Your task to perform on an android device: Clear all items from cart on bestbuy. Search for macbook pro 13 inch on bestbuy, select the first entry, and add it to the cart. Image 0: 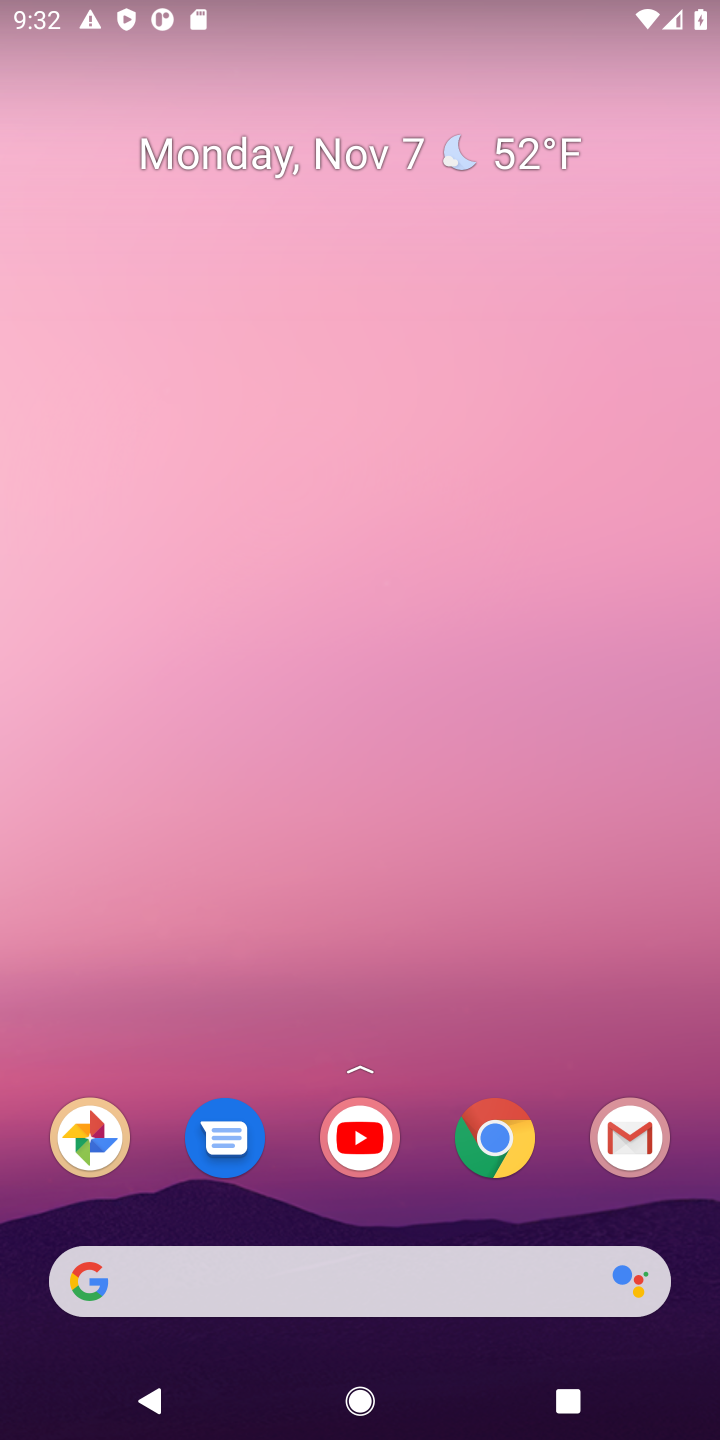
Step 0: drag from (407, 1231) to (453, 113)
Your task to perform on an android device: Clear all items from cart on bestbuy. Search for macbook pro 13 inch on bestbuy, select the first entry, and add it to the cart. Image 1: 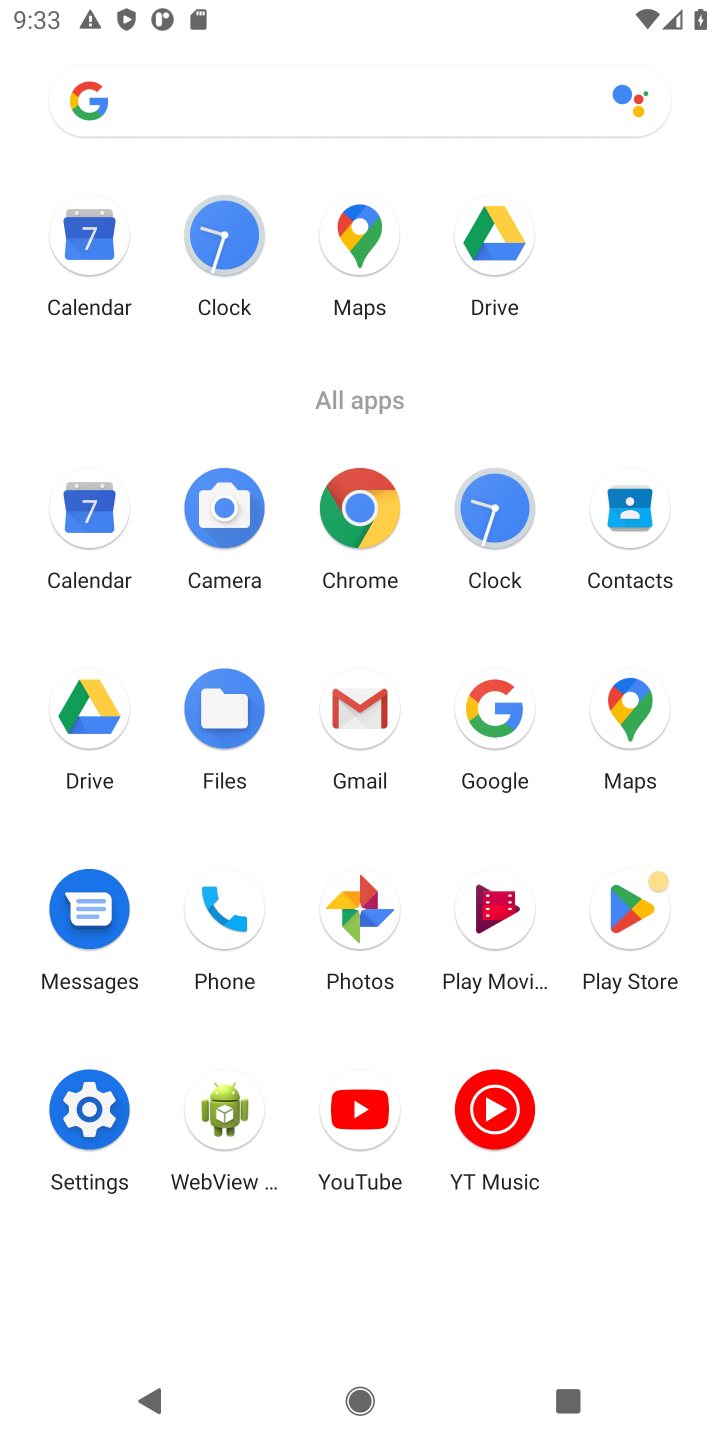
Step 1: click (356, 506)
Your task to perform on an android device: Clear all items from cart on bestbuy. Search for macbook pro 13 inch on bestbuy, select the first entry, and add it to the cart. Image 2: 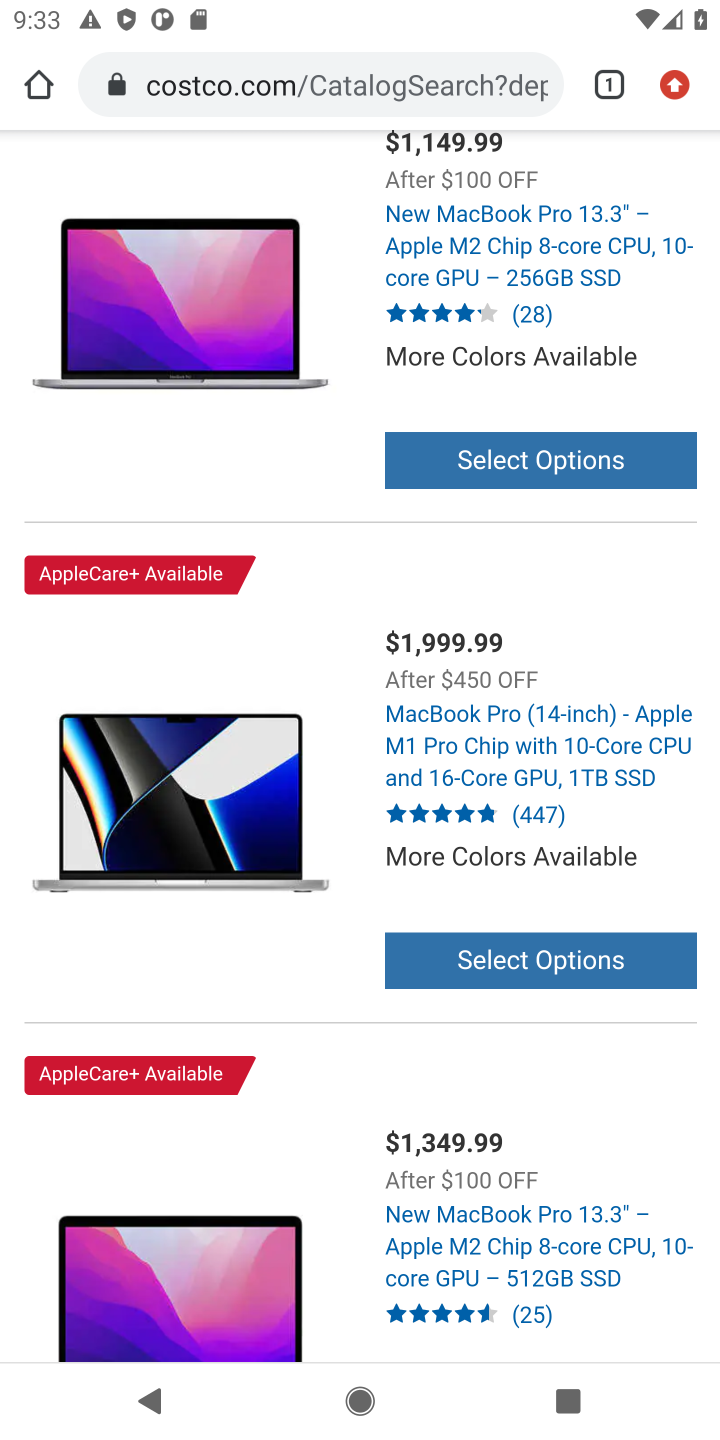
Step 2: click (414, 81)
Your task to perform on an android device: Clear all items from cart on bestbuy. Search for macbook pro 13 inch on bestbuy, select the first entry, and add it to the cart. Image 3: 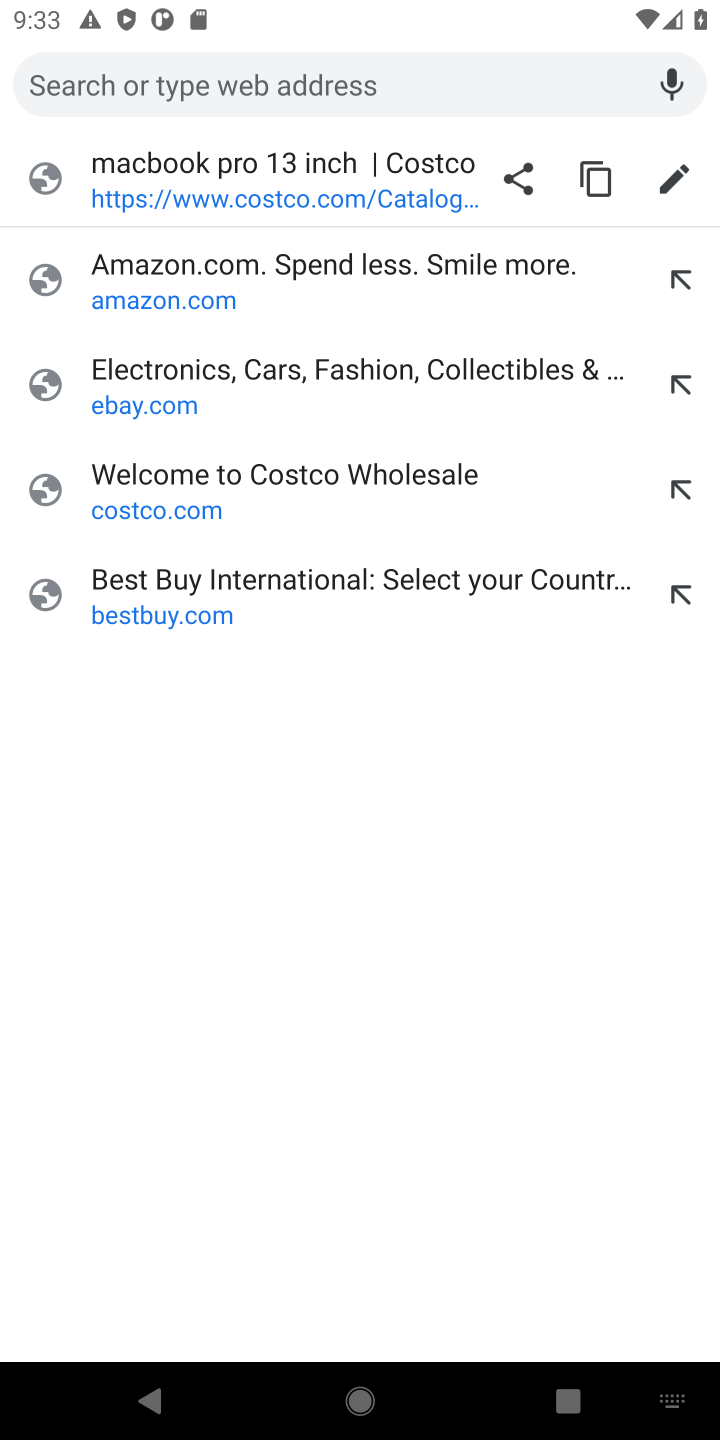
Step 3: type "bestbuy.com"
Your task to perform on an android device: Clear all items from cart on bestbuy. Search for macbook pro 13 inch on bestbuy, select the first entry, and add it to the cart. Image 4: 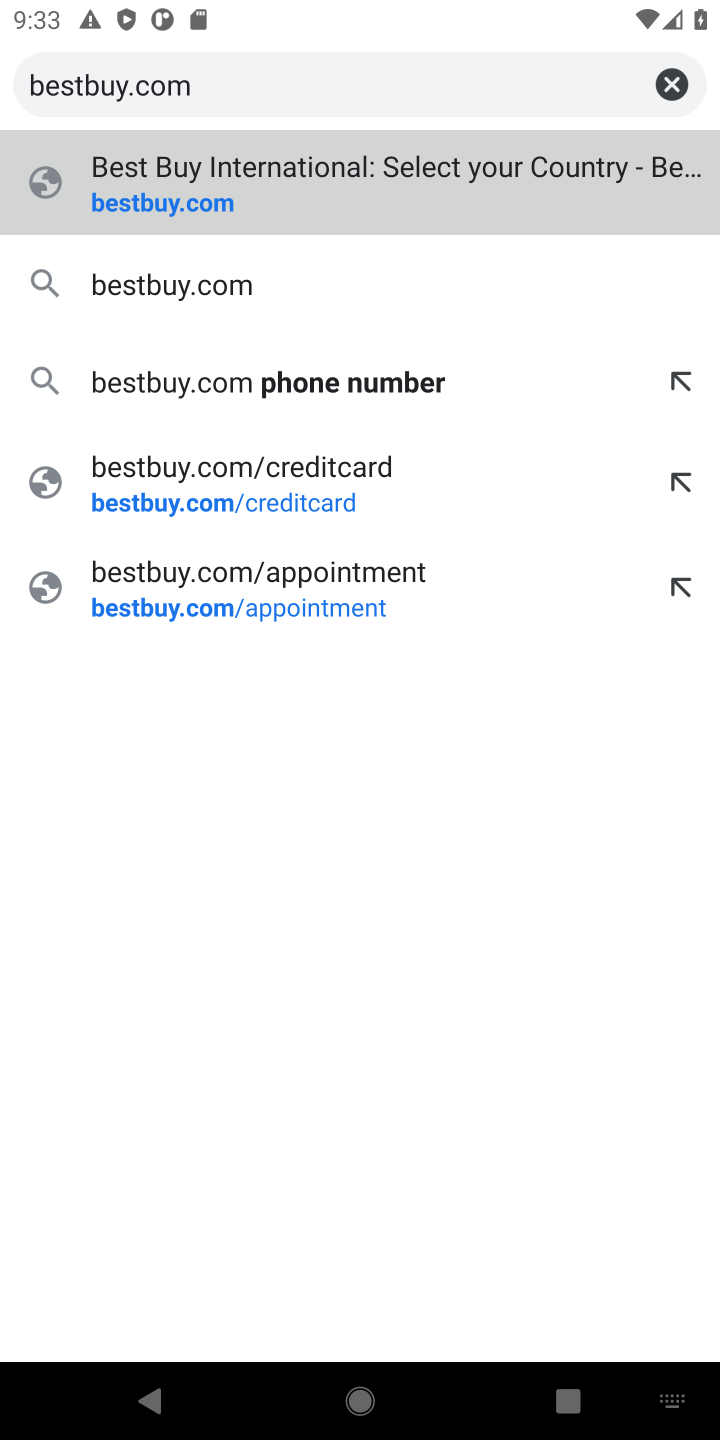
Step 4: press enter
Your task to perform on an android device: Clear all items from cart on bestbuy. Search for macbook pro 13 inch on bestbuy, select the first entry, and add it to the cart. Image 5: 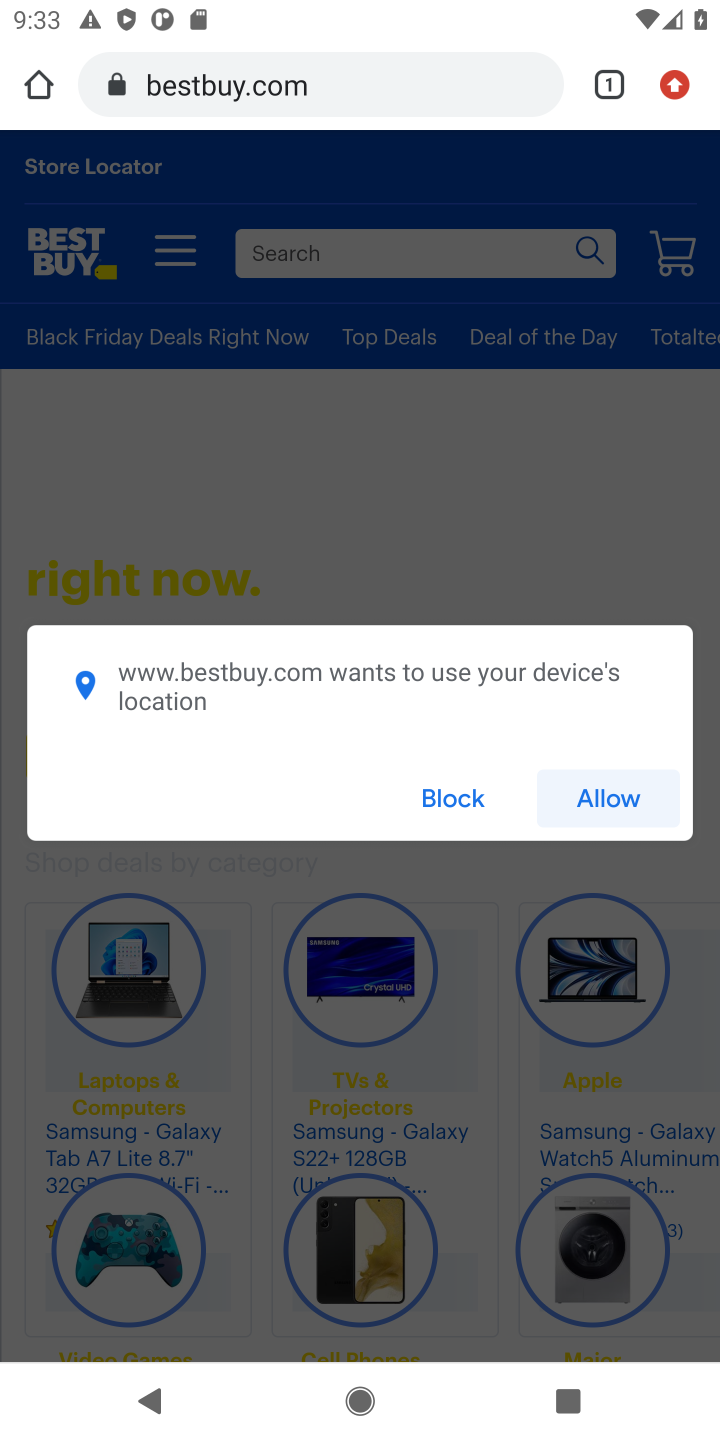
Step 5: click (471, 793)
Your task to perform on an android device: Clear all items from cart on bestbuy. Search for macbook pro 13 inch on bestbuy, select the first entry, and add it to the cart. Image 6: 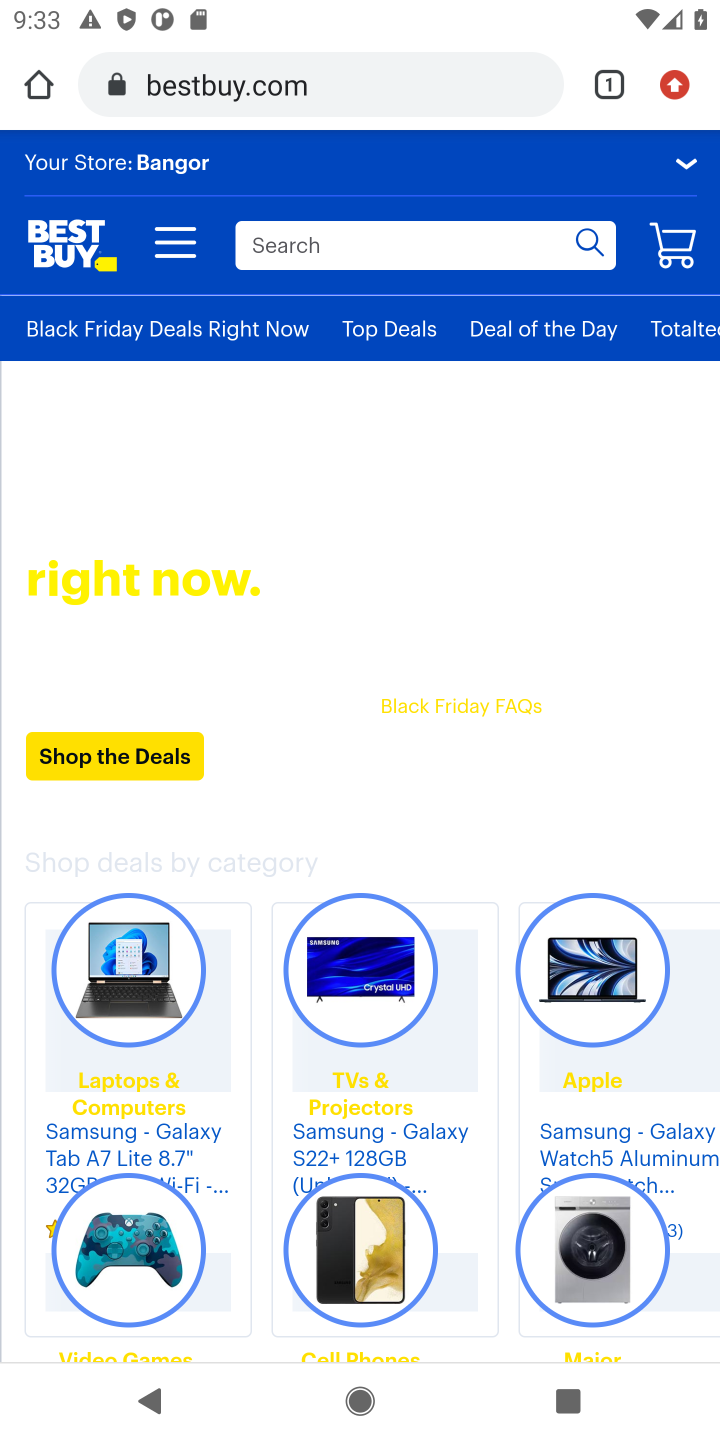
Step 6: click (677, 269)
Your task to perform on an android device: Clear all items from cart on bestbuy. Search for macbook pro 13 inch on bestbuy, select the first entry, and add it to the cart. Image 7: 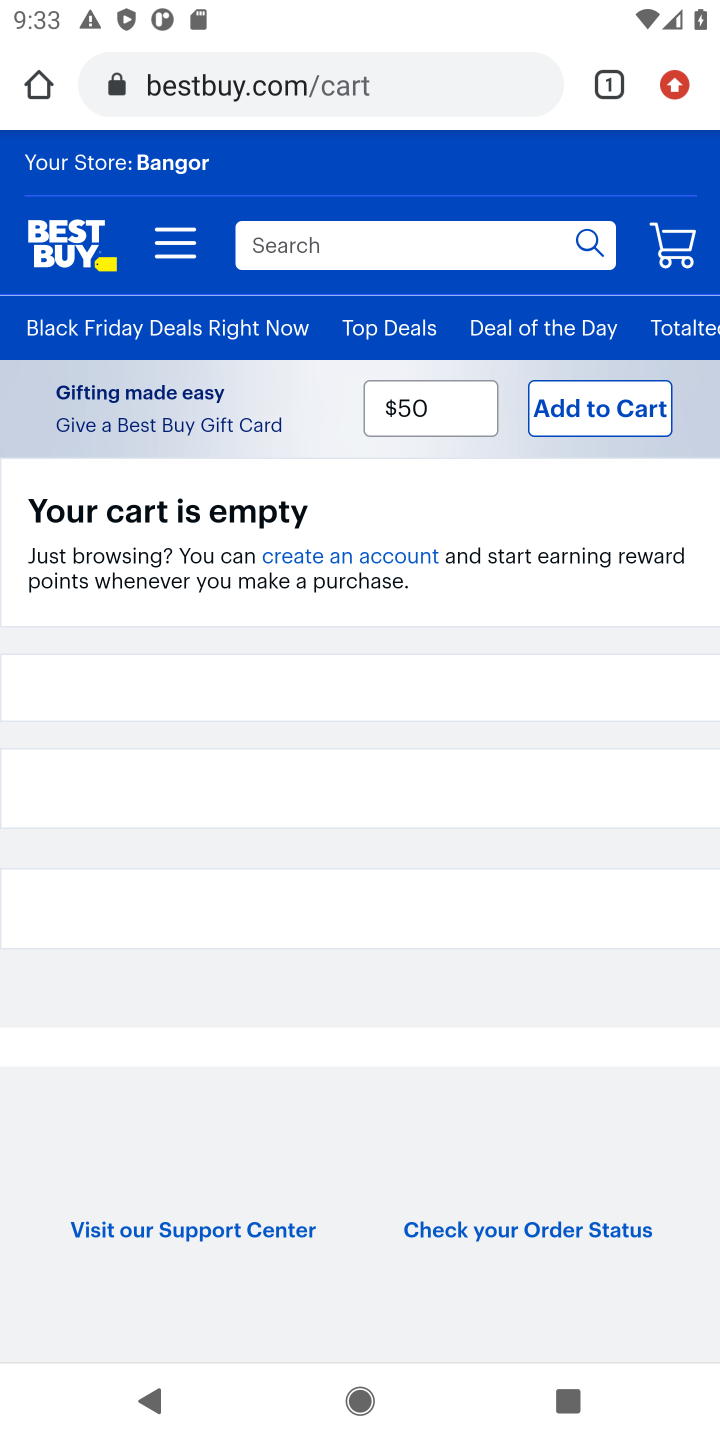
Step 7: click (481, 242)
Your task to perform on an android device: Clear all items from cart on bestbuy. Search for macbook pro 13 inch on bestbuy, select the first entry, and add it to the cart. Image 8: 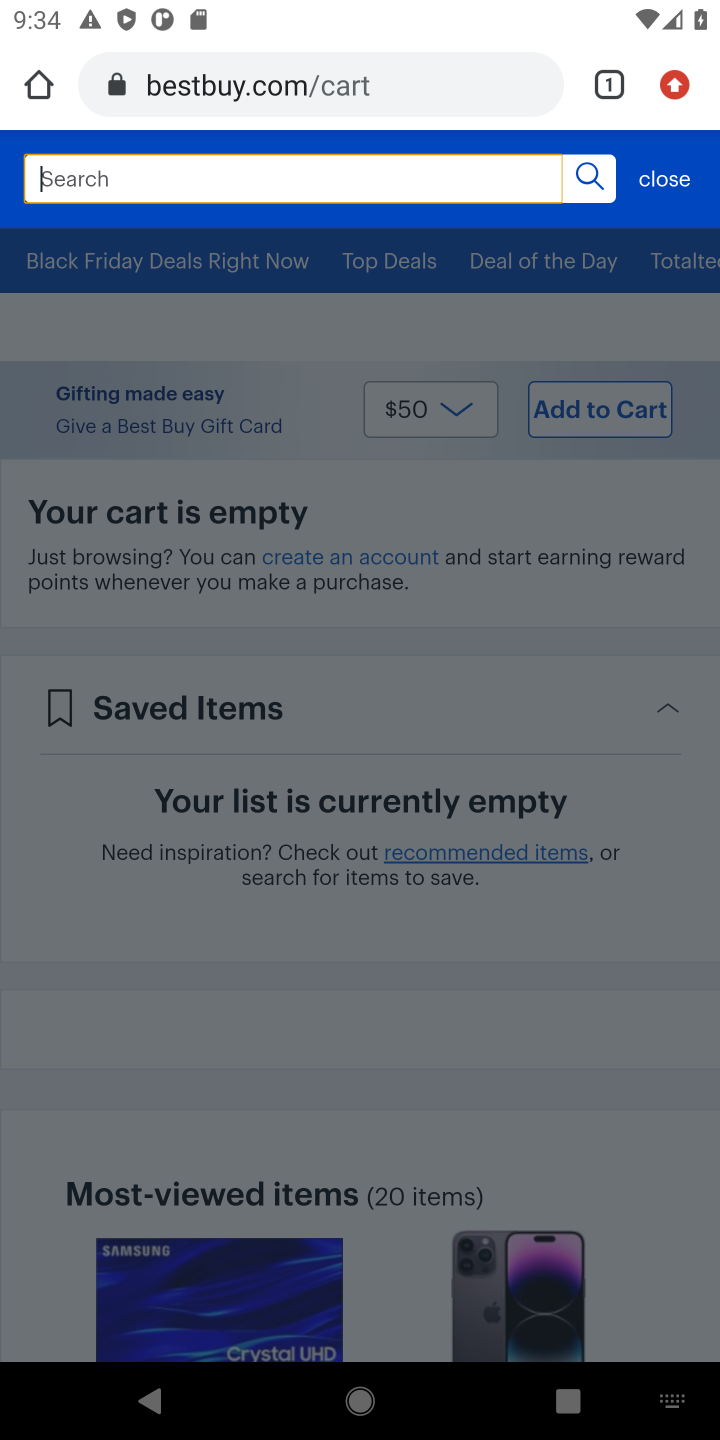
Step 8: type "macbook pro 13 inch"
Your task to perform on an android device: Clear all items from cart on bestbuy. Search for macbook pro 13 inch on bestbuy, select the first entry, and add it to the cart. Image 9: 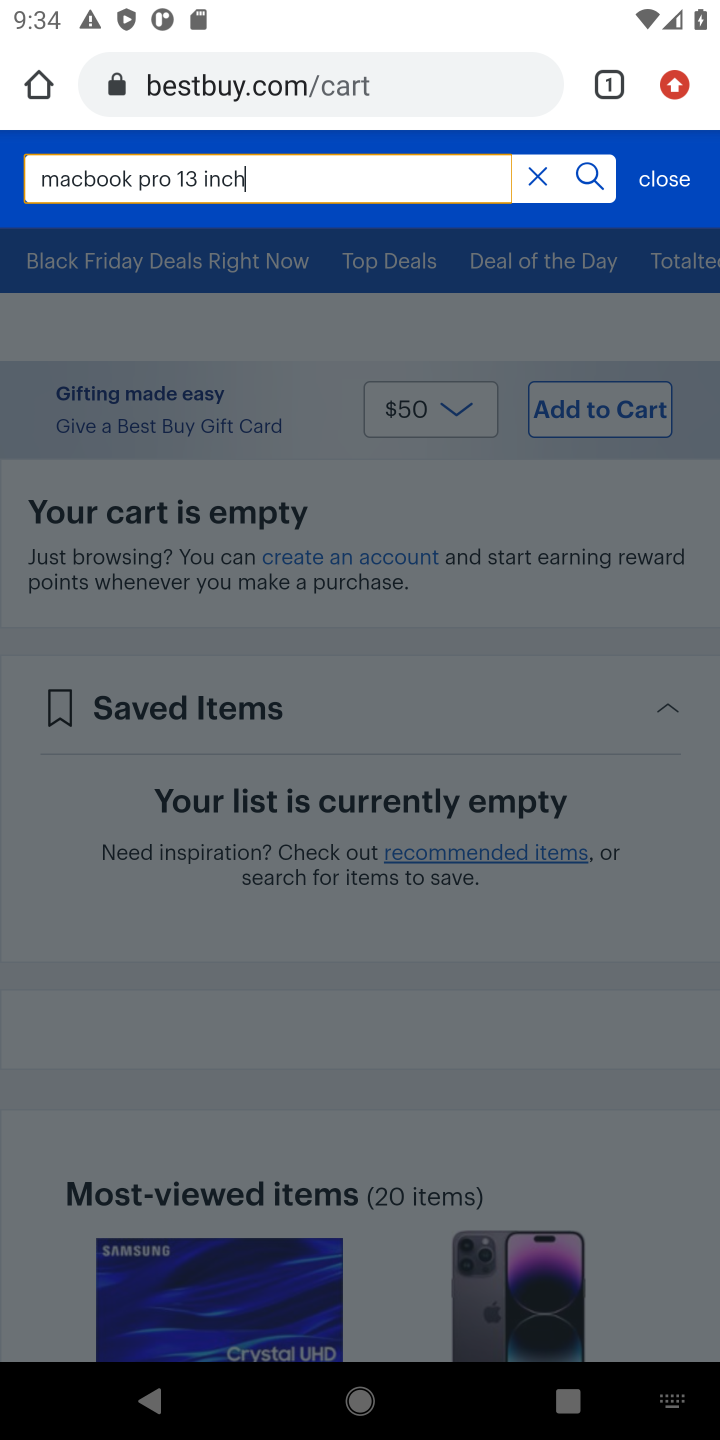
Step 9: press enter
Your task to perform on an android device: Clear all items from cart on bestbuy. Search for macbook pro 13 inch on bestbuy, select the first entry, and add it to the cart. Image 10: 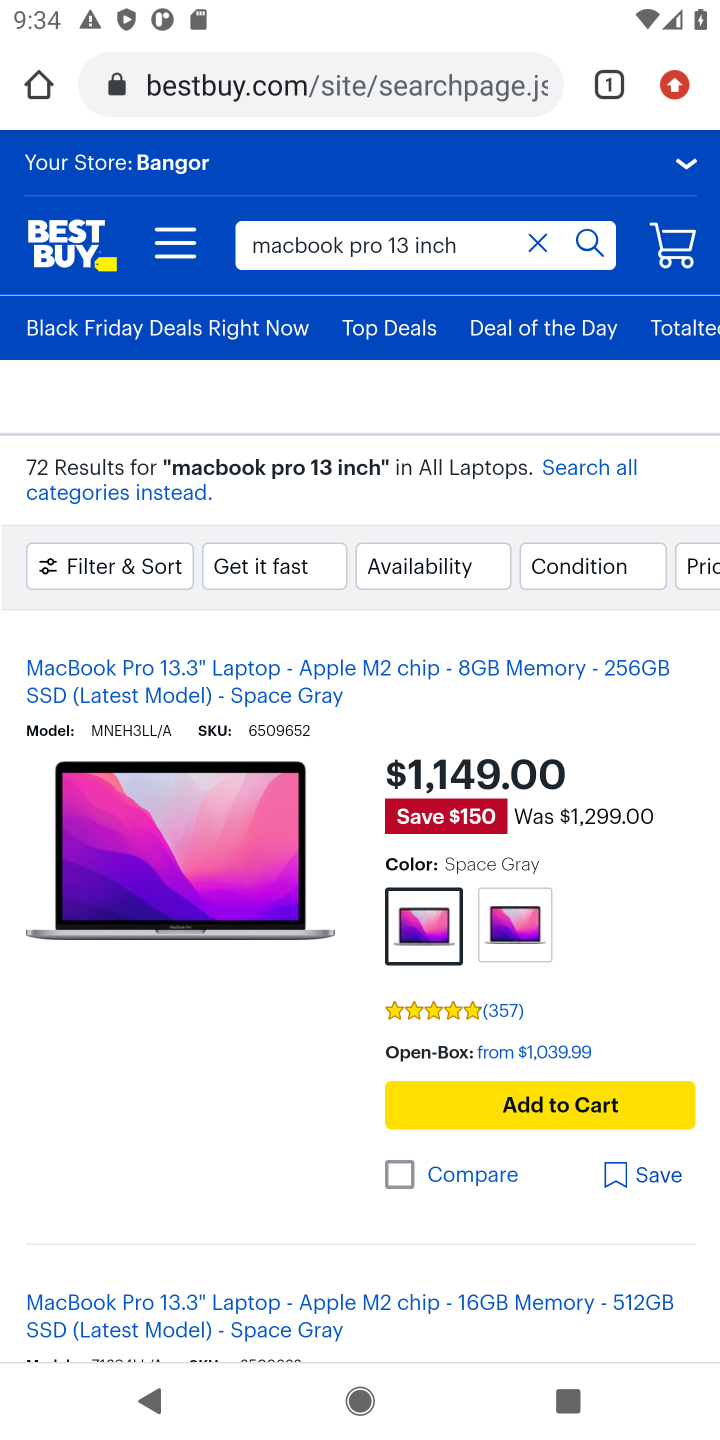
Step 10: drag from (285, 937) to (352, 527)
Your task to perform on an android device: Clear all items from cart on bestbuy. Search for macbook pro 13 inch on bestbuy, select the first entry, and add it to the cart. Image 11: 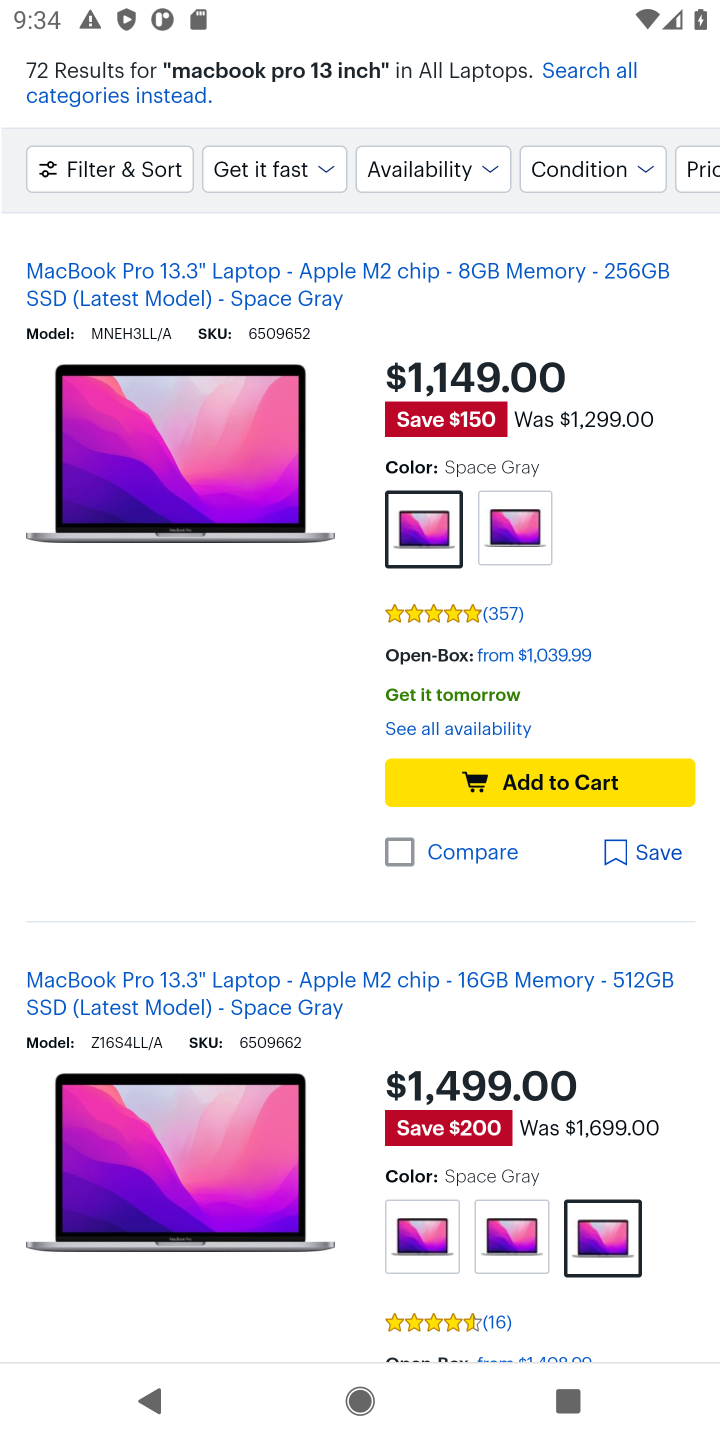
Step 11: drag from (354, 997) to (334, 456)
Your task to perform on an android device: Clear all items from cart on bestbuy. Search for macbook pro 13 inch on bestbuy, select the first entry, and add it to the cart. Image 12: 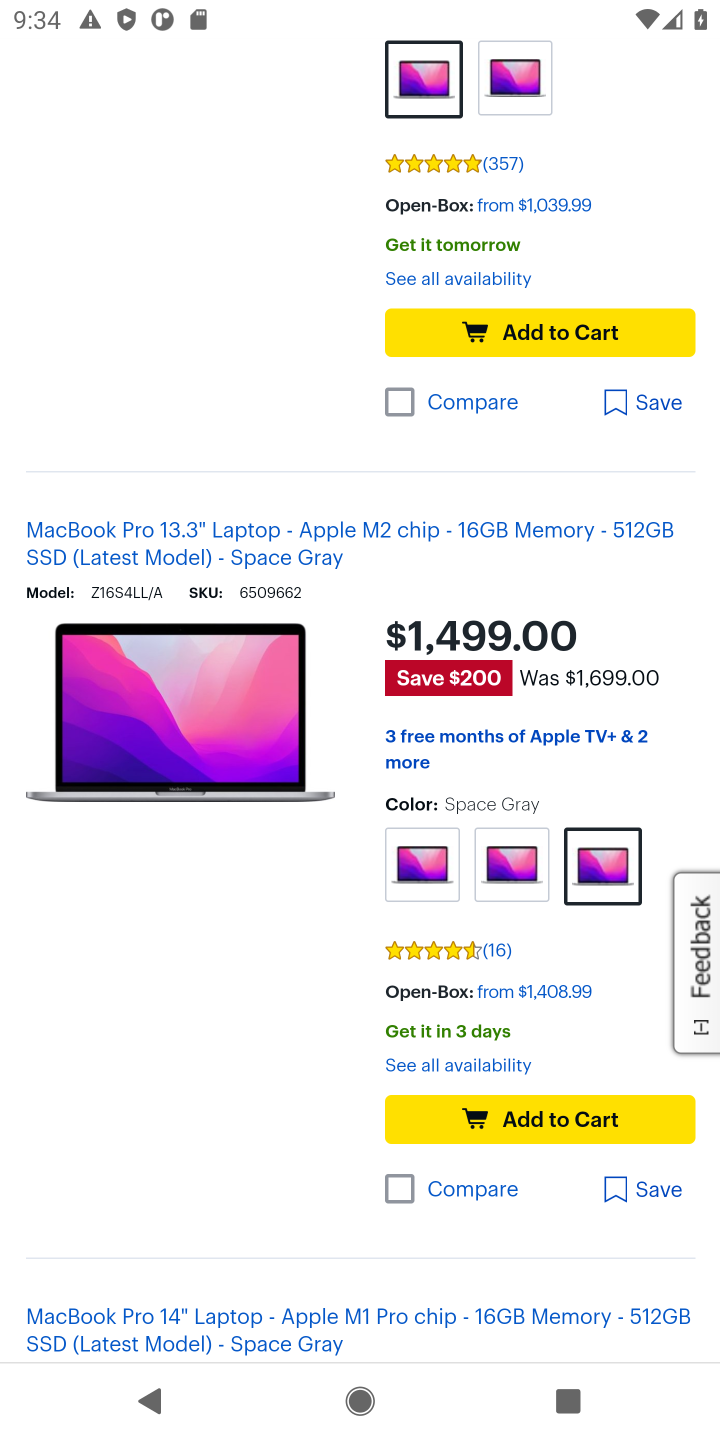
Step 12: drag from (288, 1197) to (298, 291)
Your task to perform on an android device: Clear all items from cart on bestbuy. Search for macbook pro 13 inch on bestbuy, select the first entry, and add it to the cart. Image 13: 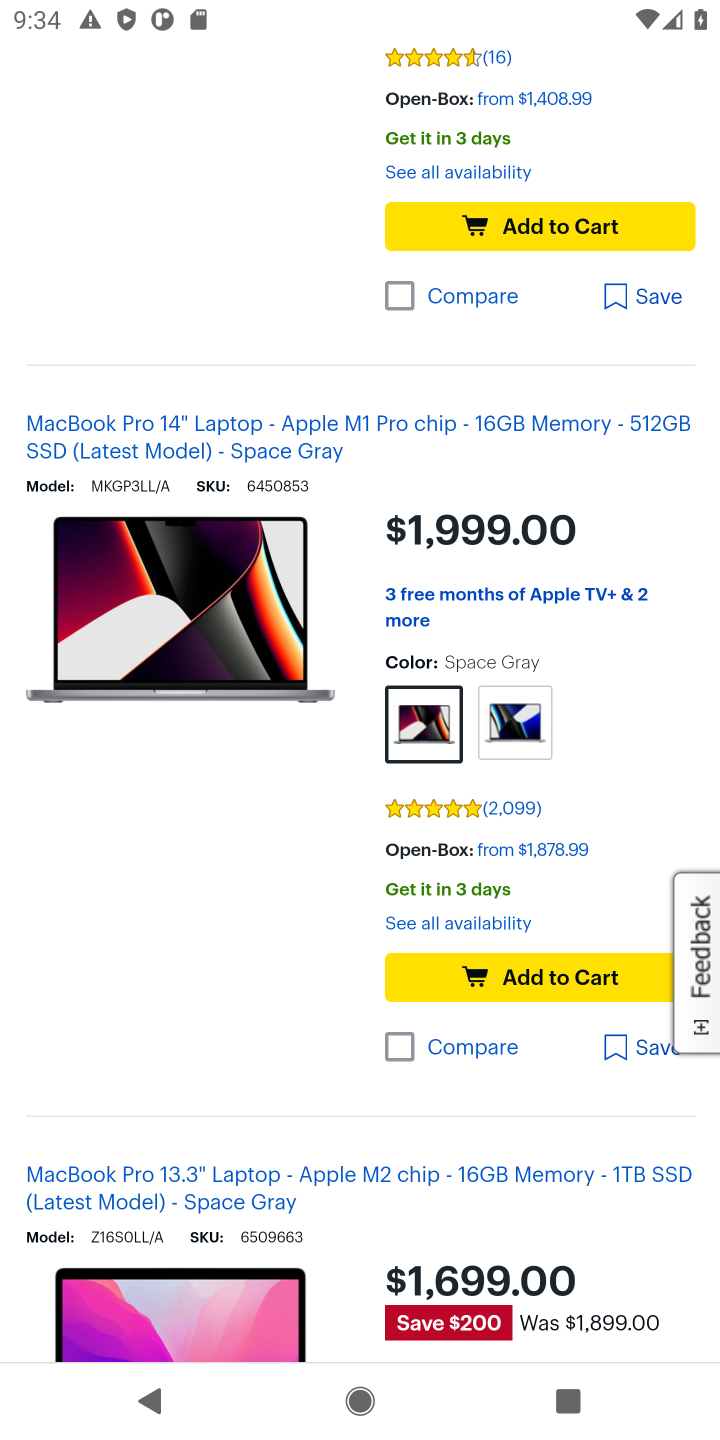
Step 13: drag from (227, 984) to (291, 231)
Your task to perform on an android device: Clear all items from cart on bestbuy. Search for macbook pro 13 inch on bestbuy, select the first entry, and add it to the cart. Image 14: 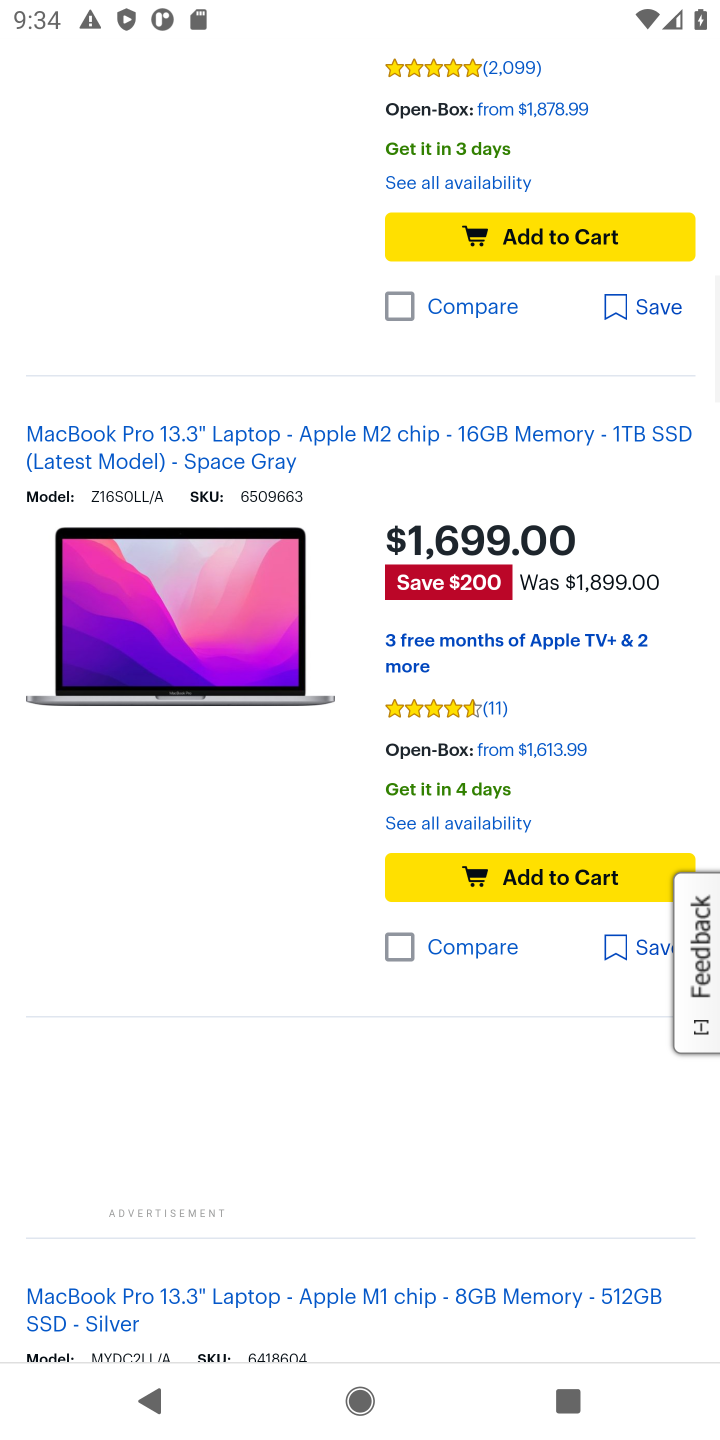
Step 14: drag from (260, 1062) to (326, 270)
Your task to perform on an android device: Clear all items from cart on bestbuy. Search for macbook pro 13 inch on bestbuy, select the first entry, and add it to the cart. Image 15: 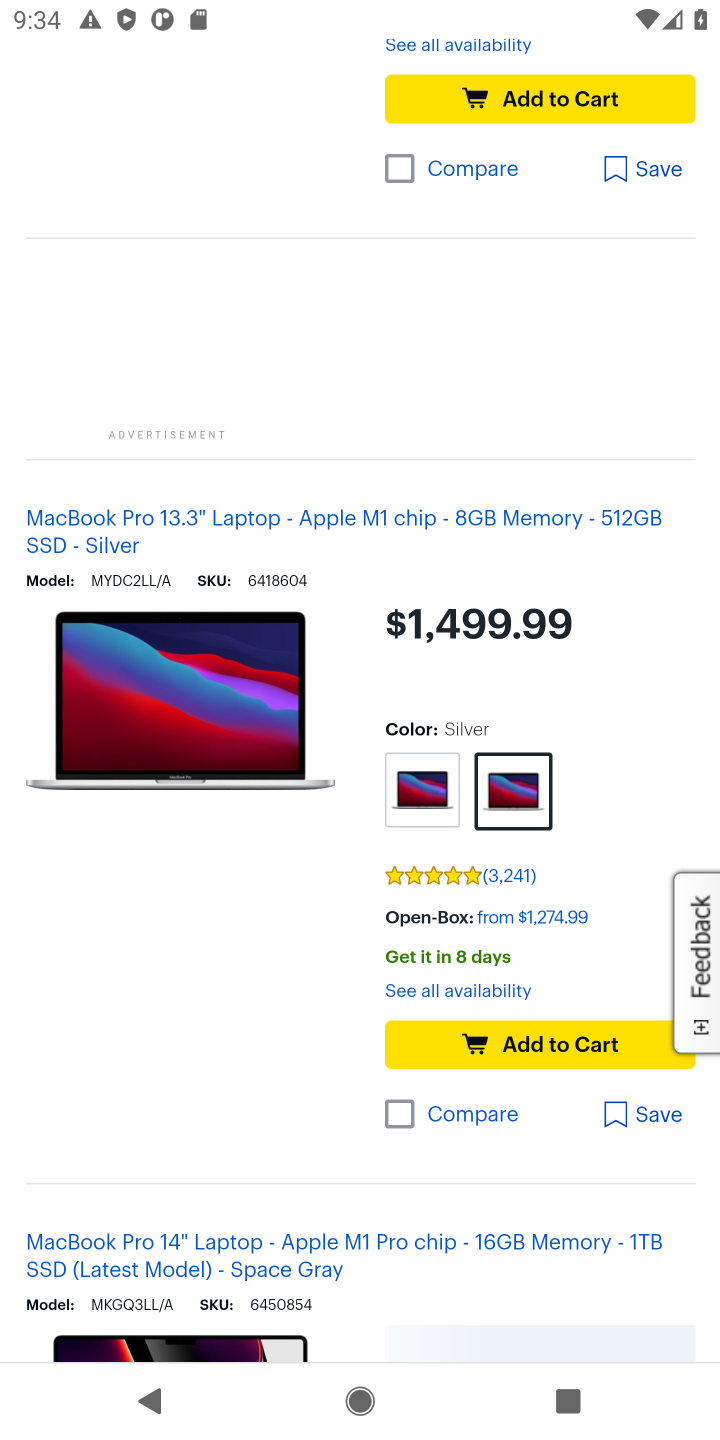
Step 15: drag from (303, 1034) to (327, 243)
Your task to perform on an android device: Clear all items from cart on bestbuy. Search for macbook pro 13 inch on bestbuy, select the first entry, and add it to the cart. Image 16: 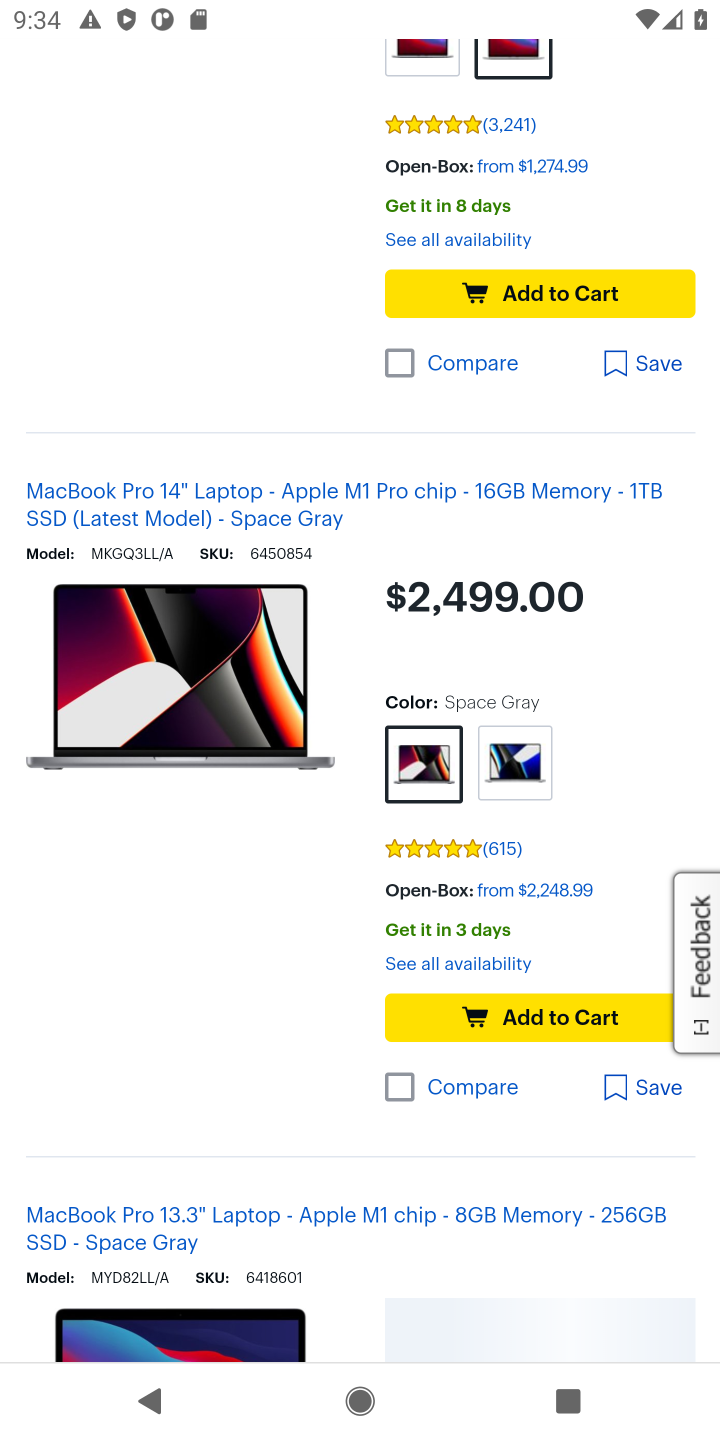
Step 16: drag from (247, 1047) to (246, 191)
Your task to perform on an android device: Clear all items from cart on bestbuy. Search for macbook pro 13 inch on bestbuy, select the first entry, and add it to the cart. Image 17: 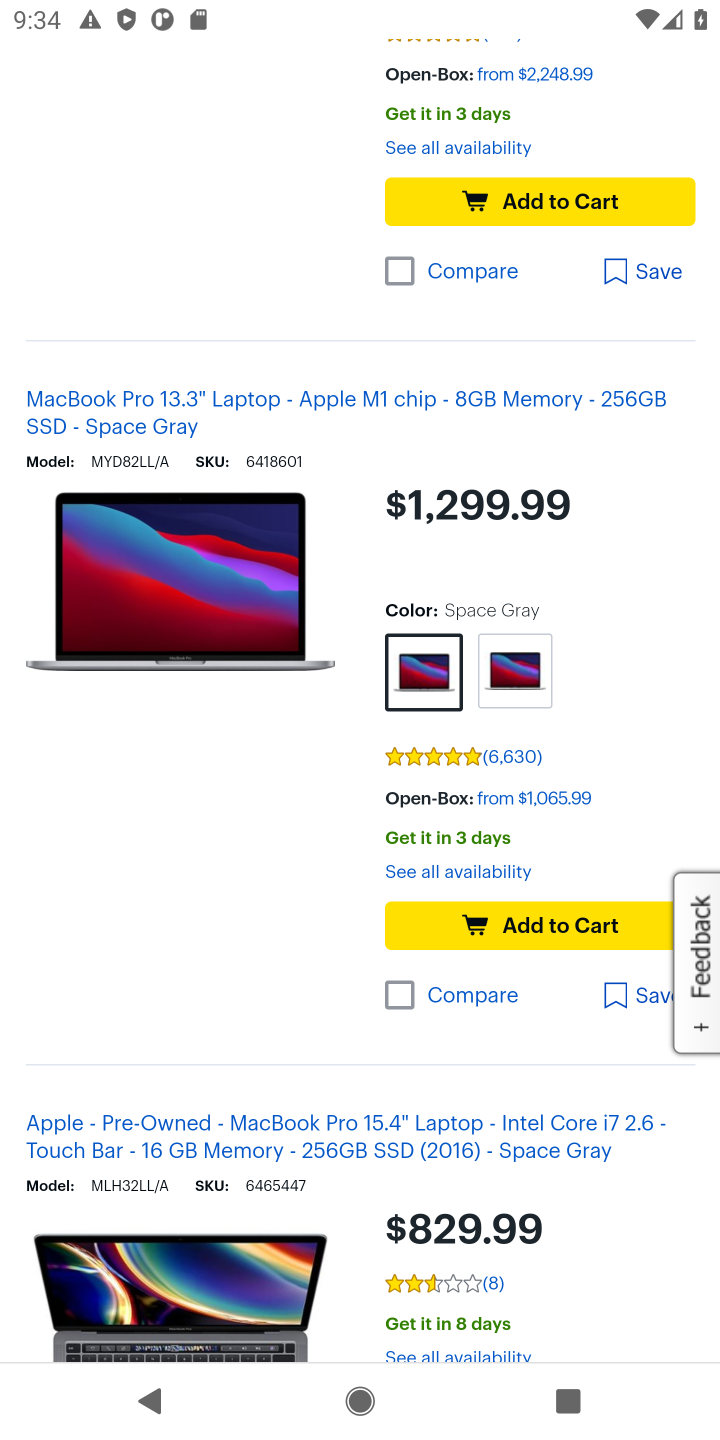
Step 17: drag from (372, 1196) to (387, 394)
Your task to perform on an android device: Clear all items from cart on bestbuy. Search for macbook pro 13 inch on bestbuy, select the first entry, and add it to the cart. Image 18: 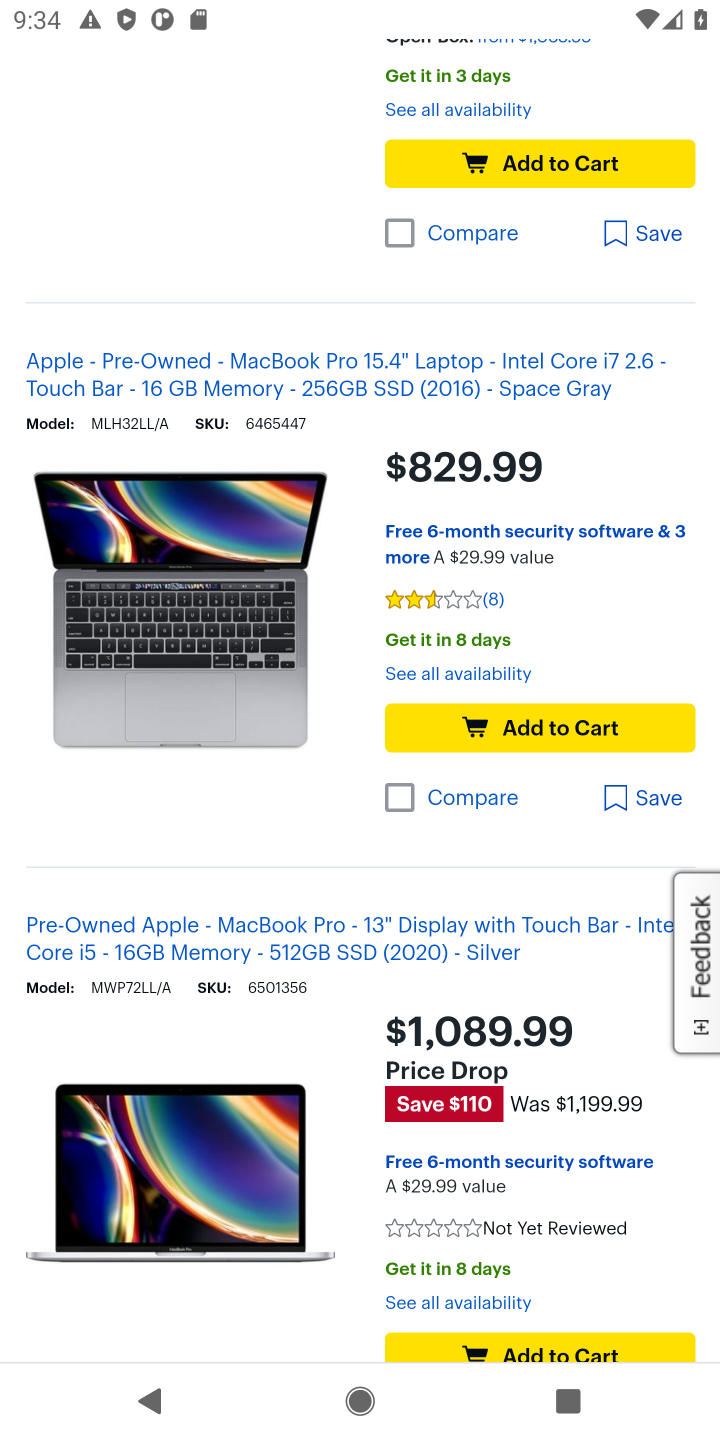
Step 18: drag from (328, 1138) to (268, 795)
Your task to perform on an android device: Clear all items from cart on bestbuy. Search for macbook pro 13 inch on bestbuy, select the first entry, and add it to the cart. Image 19: 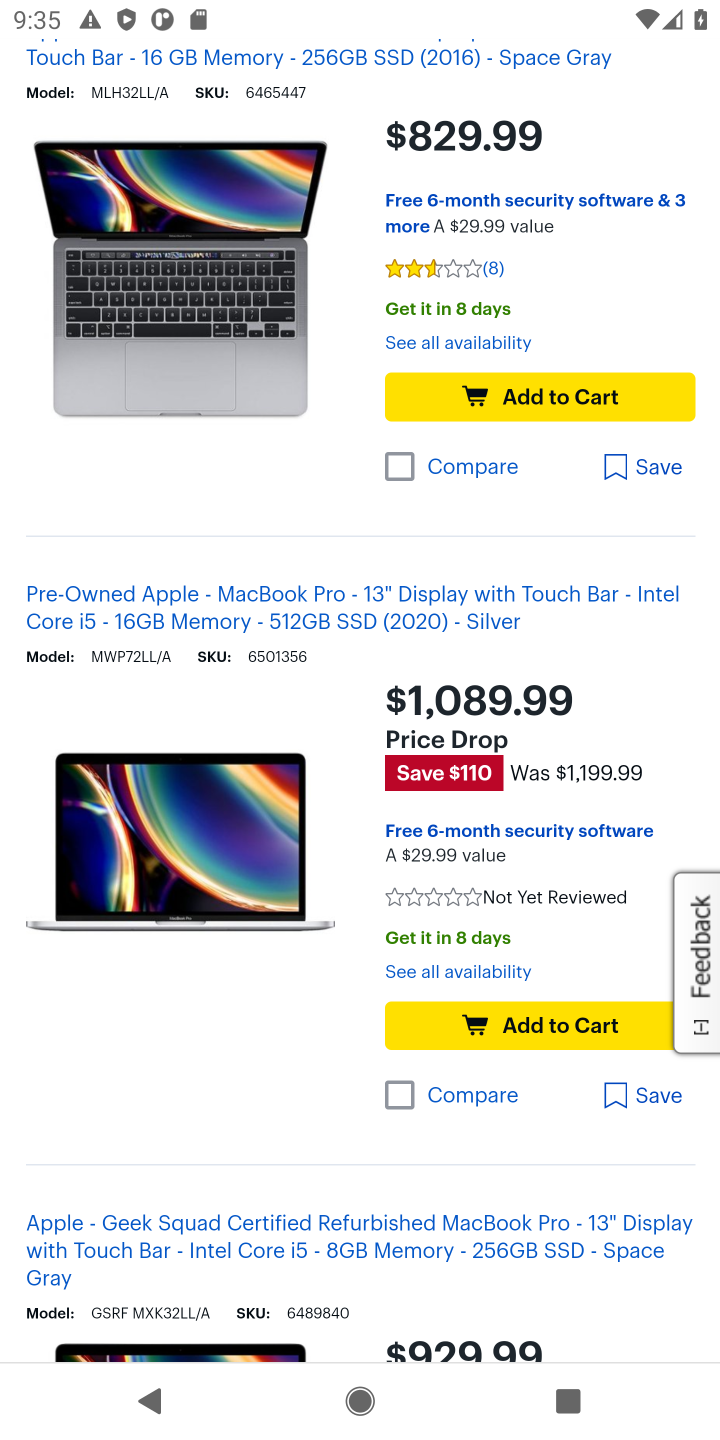
Step 19: click (537, 1035)
Your task to perform on an android device: Clear all items from cart on bestbuy. Search for macbook pro 13 inch on bestbuy, select the first entry, and add it to the cart. Image 20: 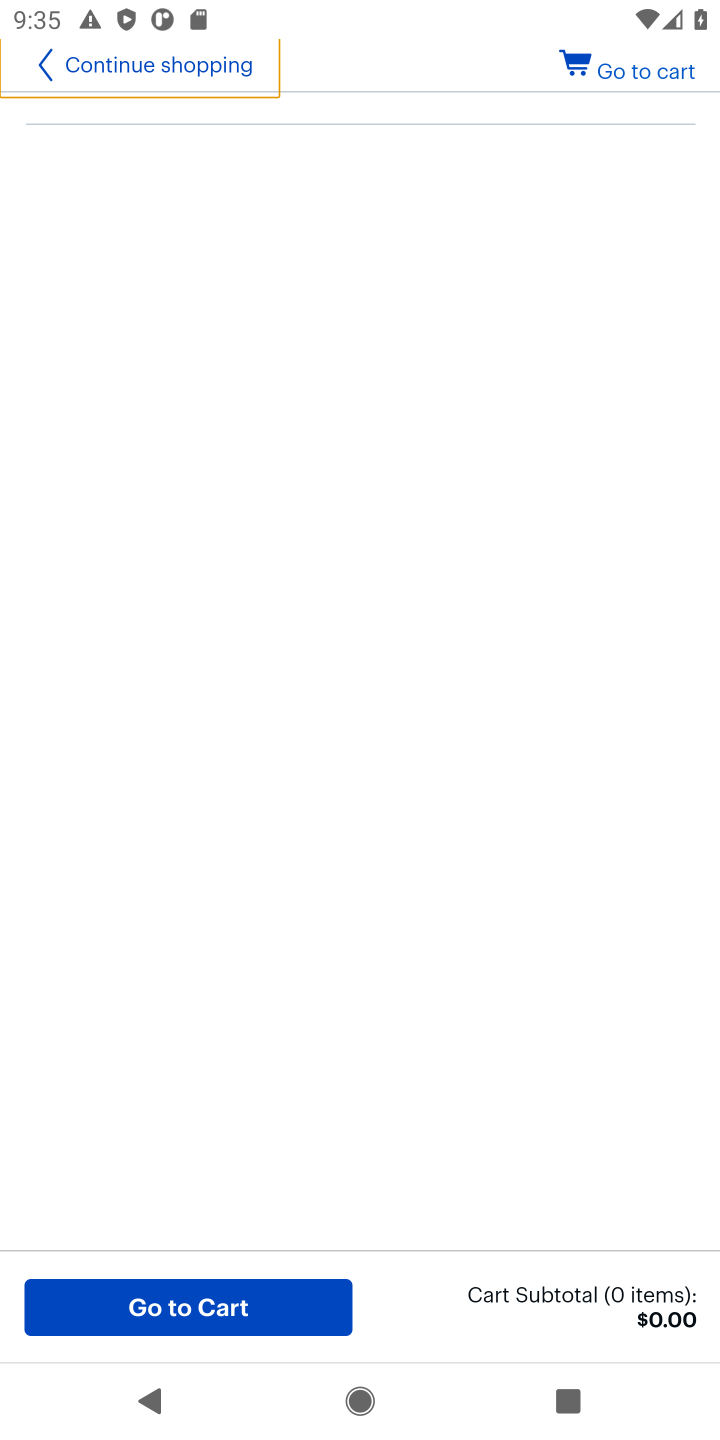
Step 20: task complete